Your task to perform on an android device: turn on improve location accuracy Image 0: 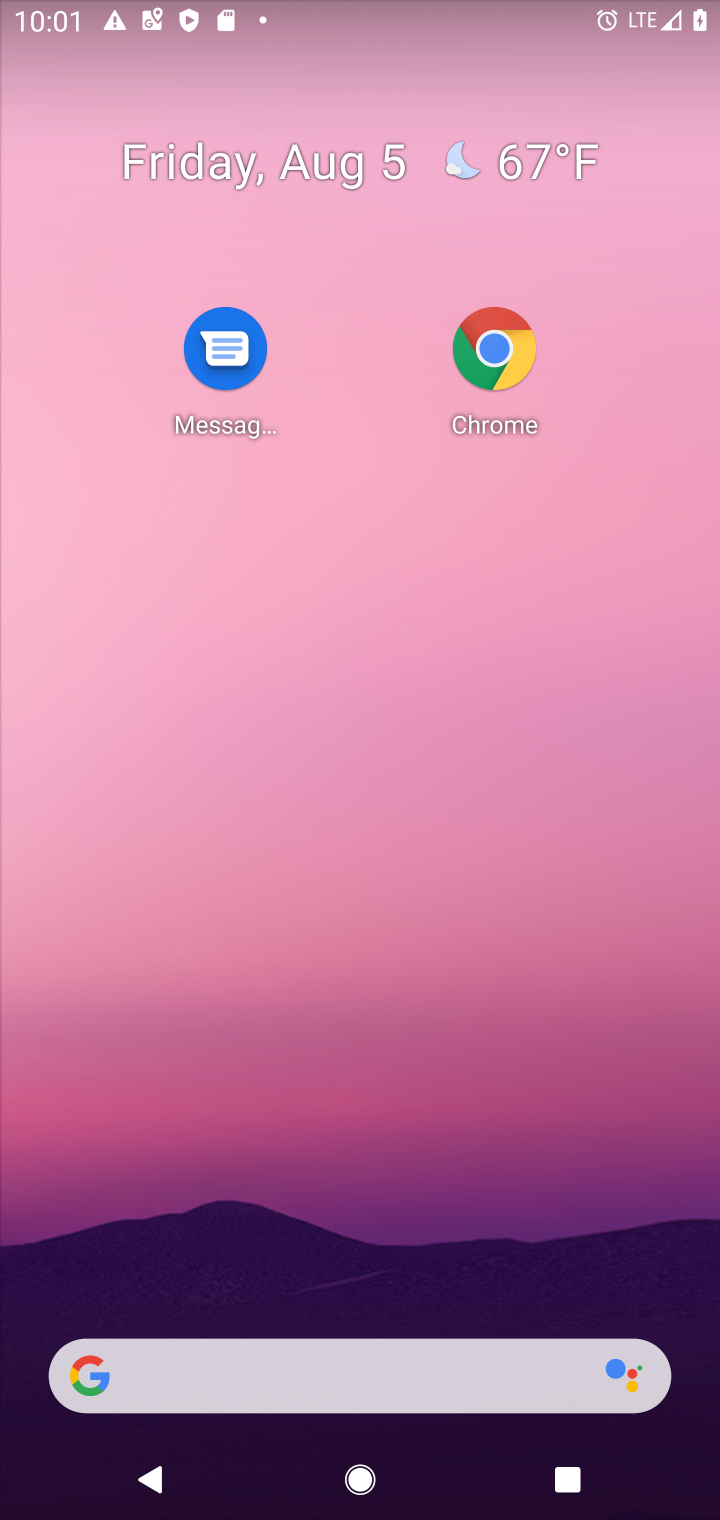
Step 0: press home button
Your task to perform on an android device: turn on improve location accuracy Image 1: 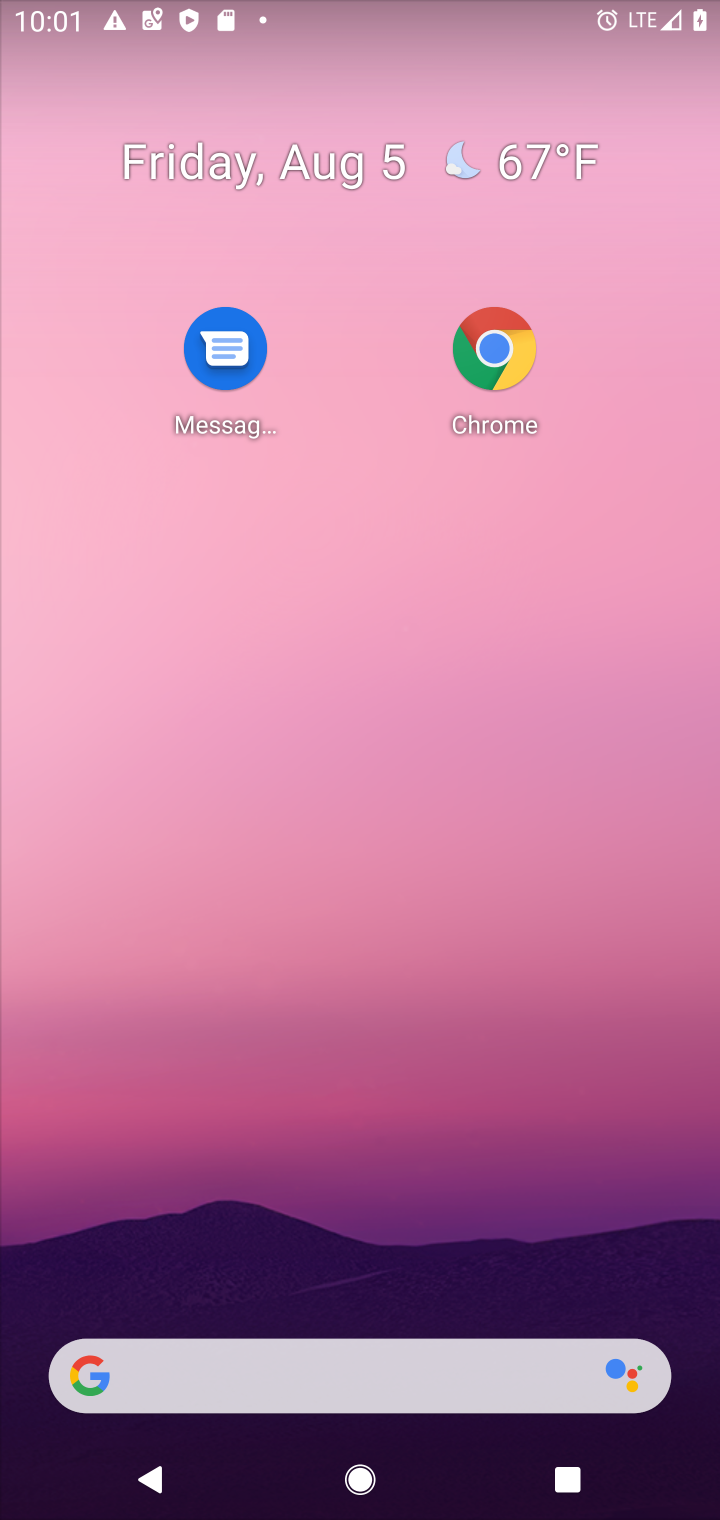
Step 1: drag from (431, 1424) to (353, 92)
Your task to perform on an android device: turn on improve location accuracy Image 2: 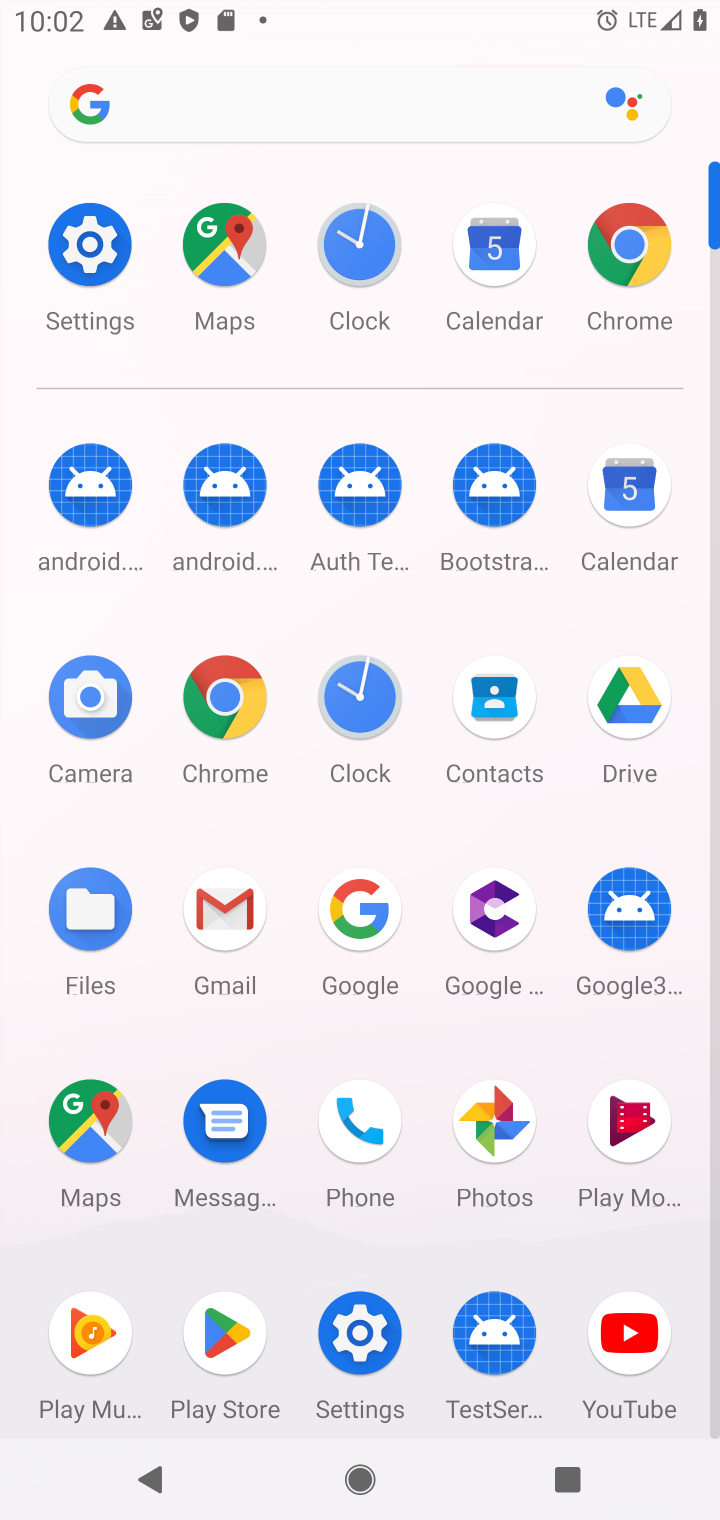
Step 2: click (103, 257)
Your task to perform on an android device: turn on improve location accuracy Image 3: 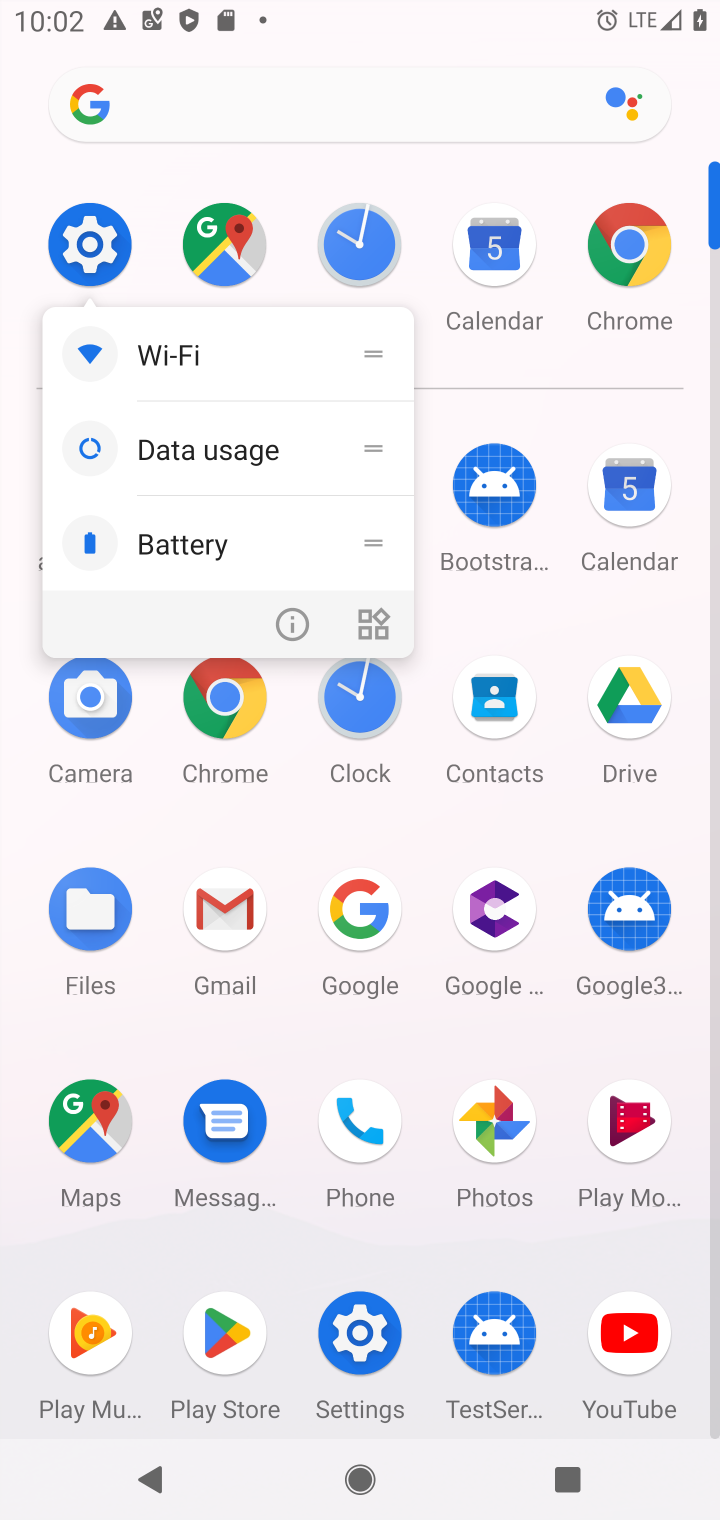
Step 3: click (85, 279)
Your task to perform on an android device: turn on improve location accuracy Image 4: 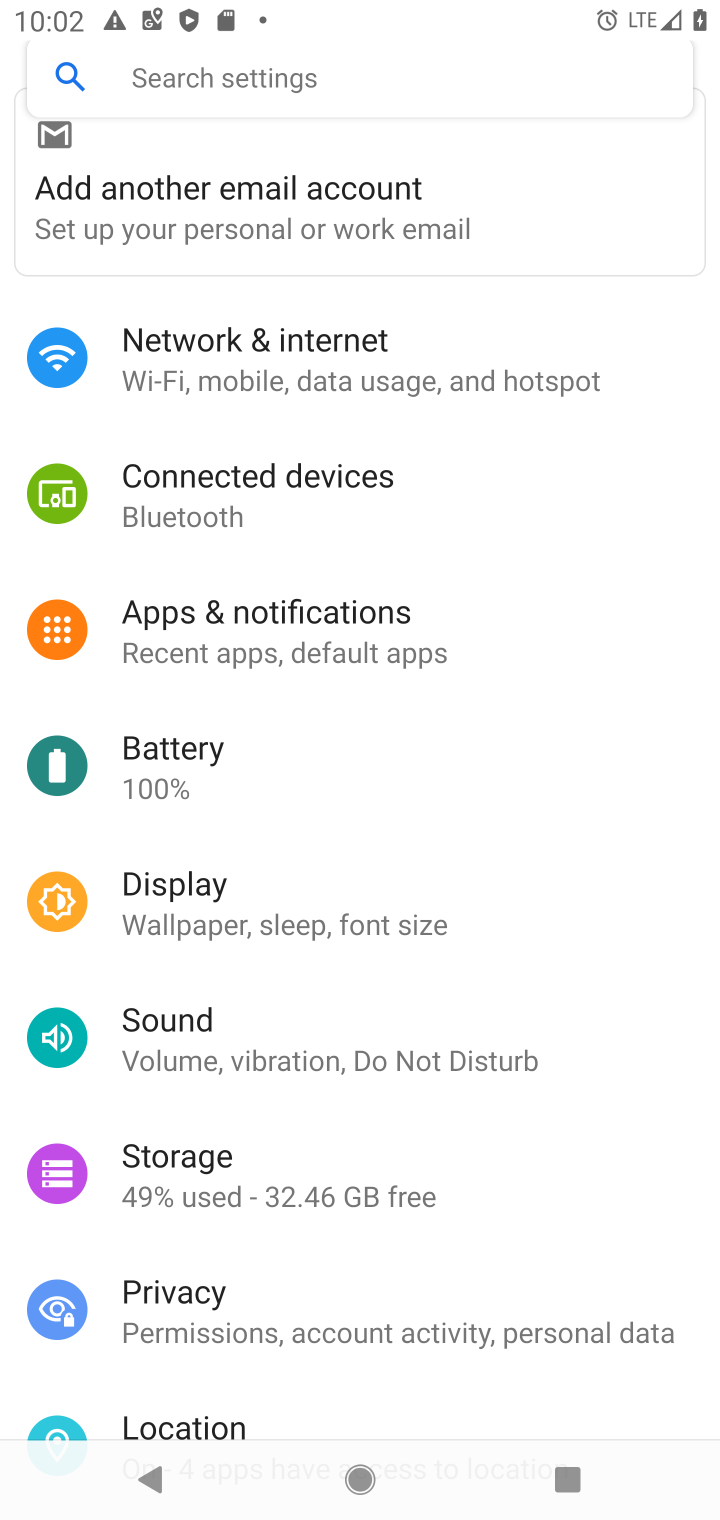
Step 4: click (198, 1433)
Your task to perform on an android device: turn on improve location accuracy Image 5: 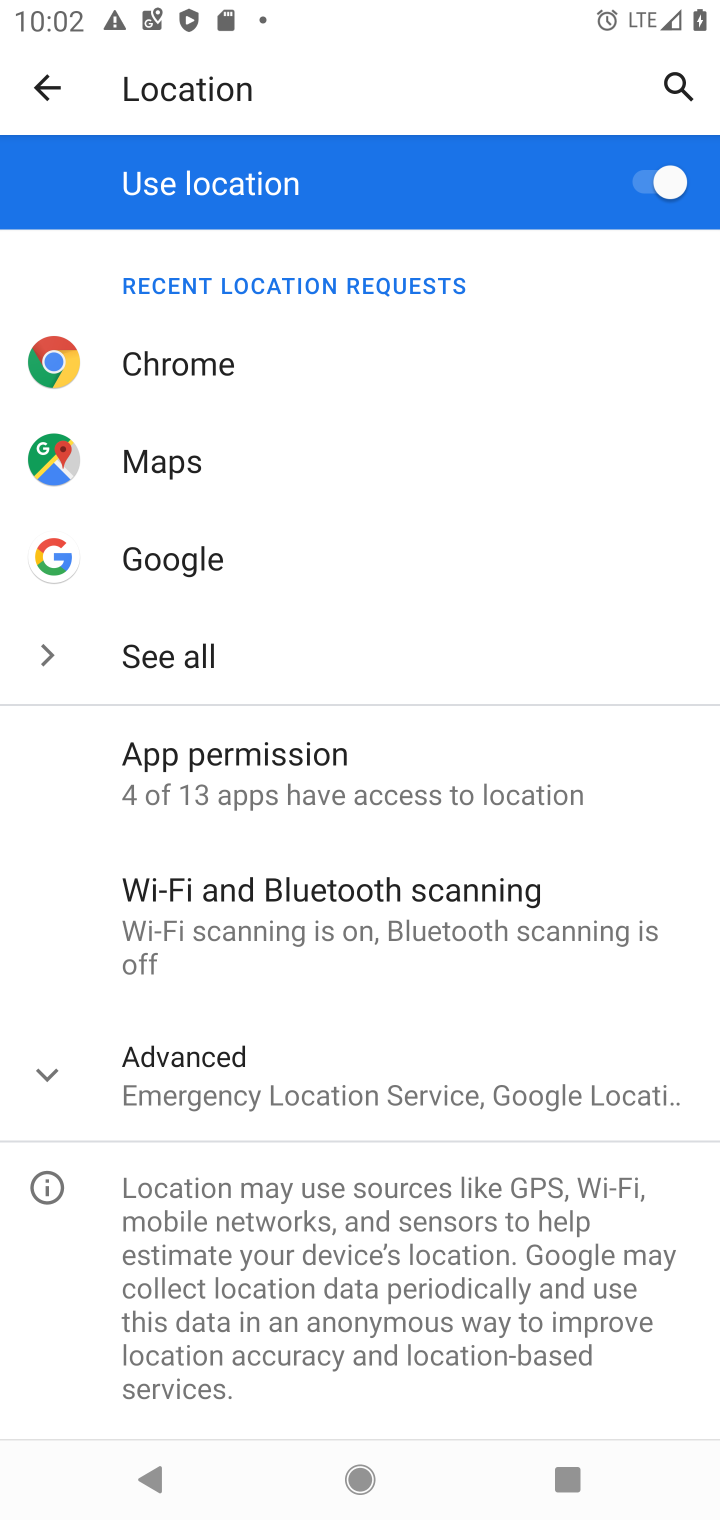
Step 5: click (95, 1081)
Your task to perform on an android device: turn on improve location accuracy Image 6: 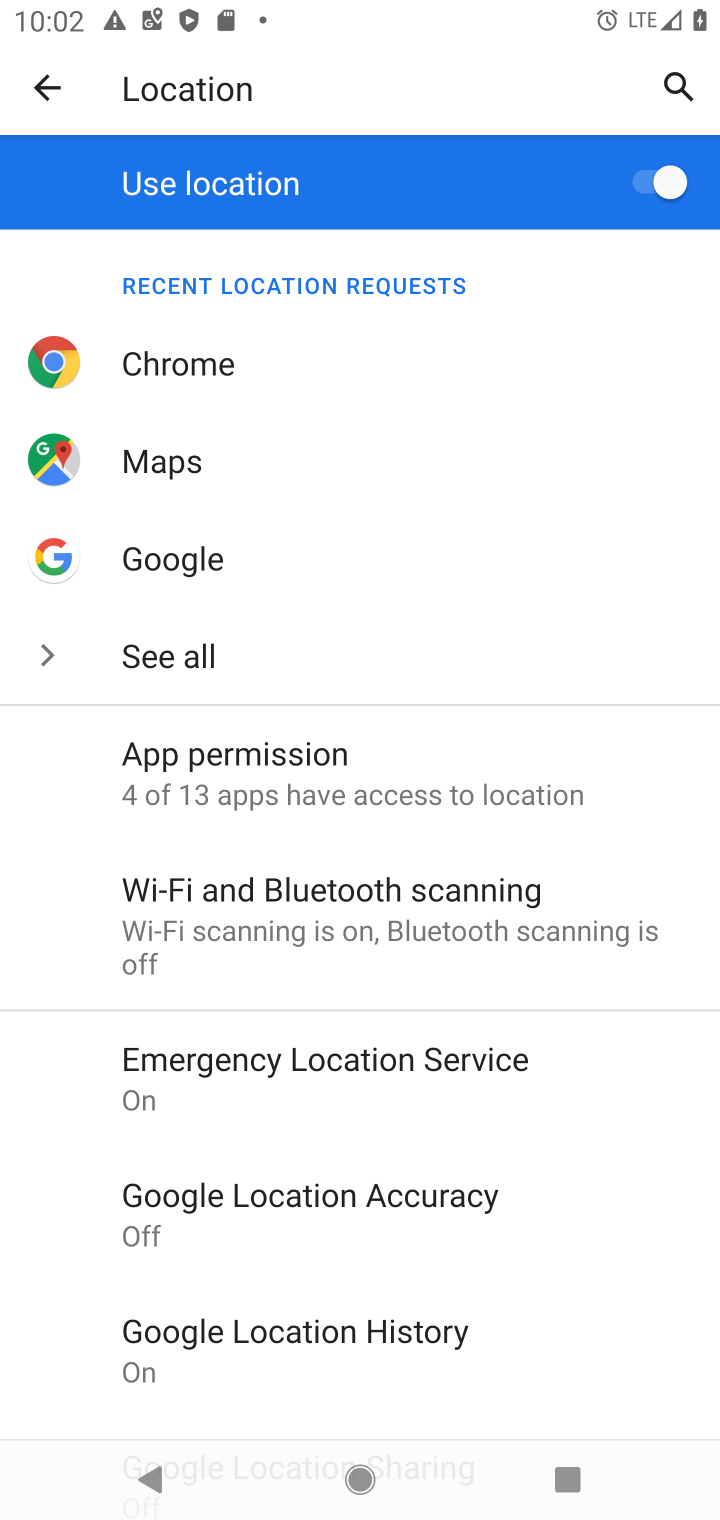
Step 6: click (217, 1216)
Your task to perform on an android device: turn on improve location accuracy Image 7: 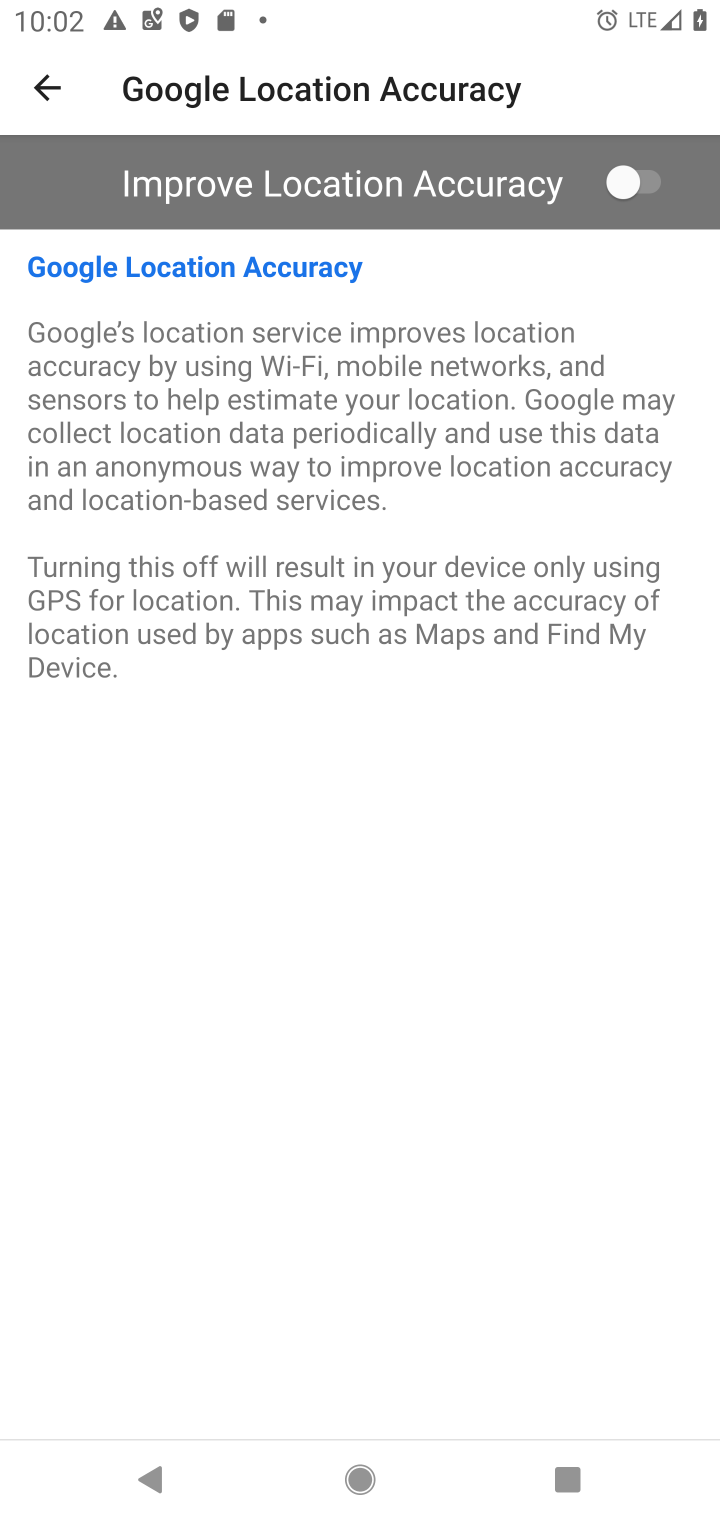
Step 7: click (647, 184)
Your task to perform on an android device: turn on improve location accuracy Image 8: 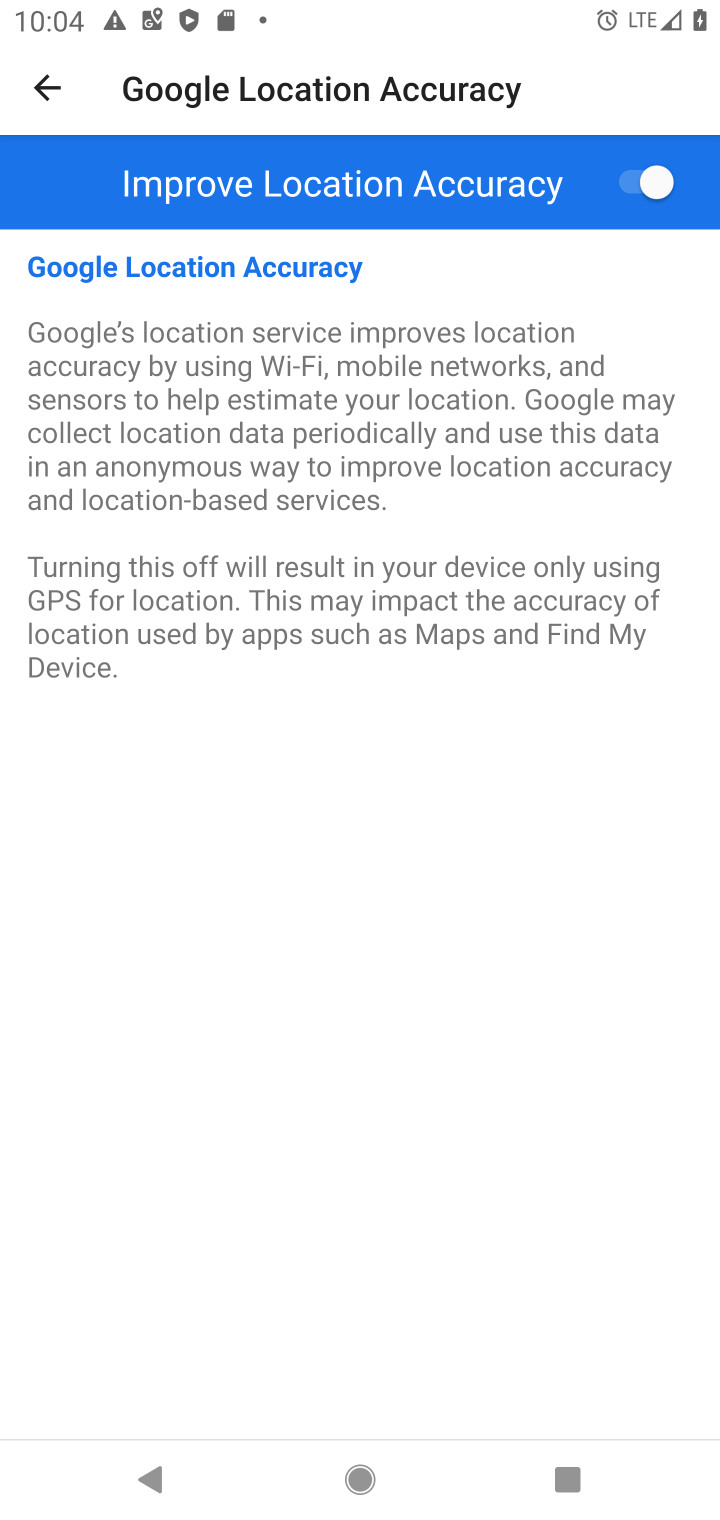
Step 8: task complete